Your task to perform on an android device: move a message to another label in the gmail app Image 0: 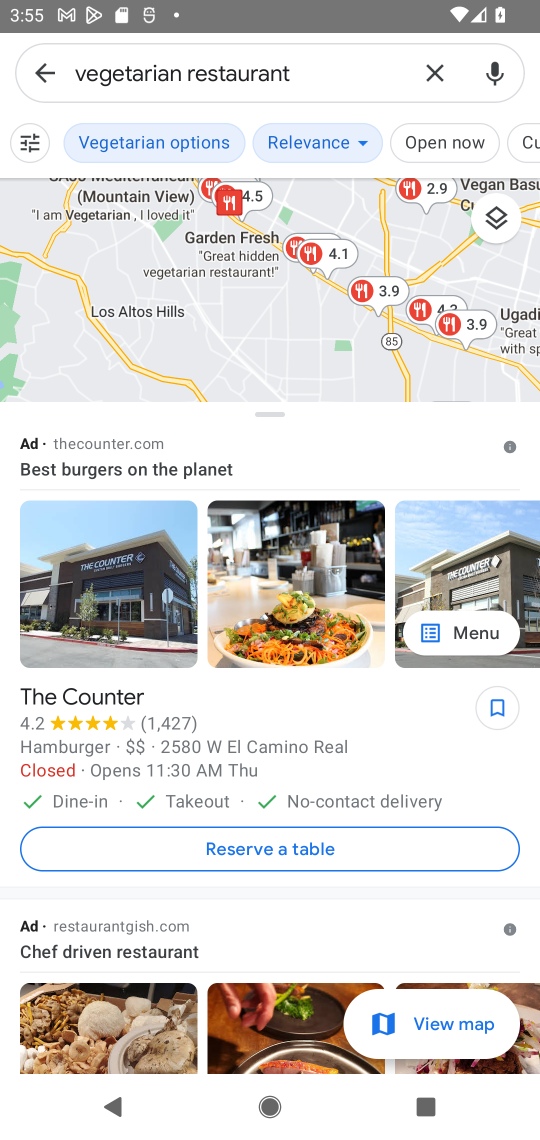
Step 0: press home button
Your task to perform on an android device: move a message to another label in the gmail app Image 1: 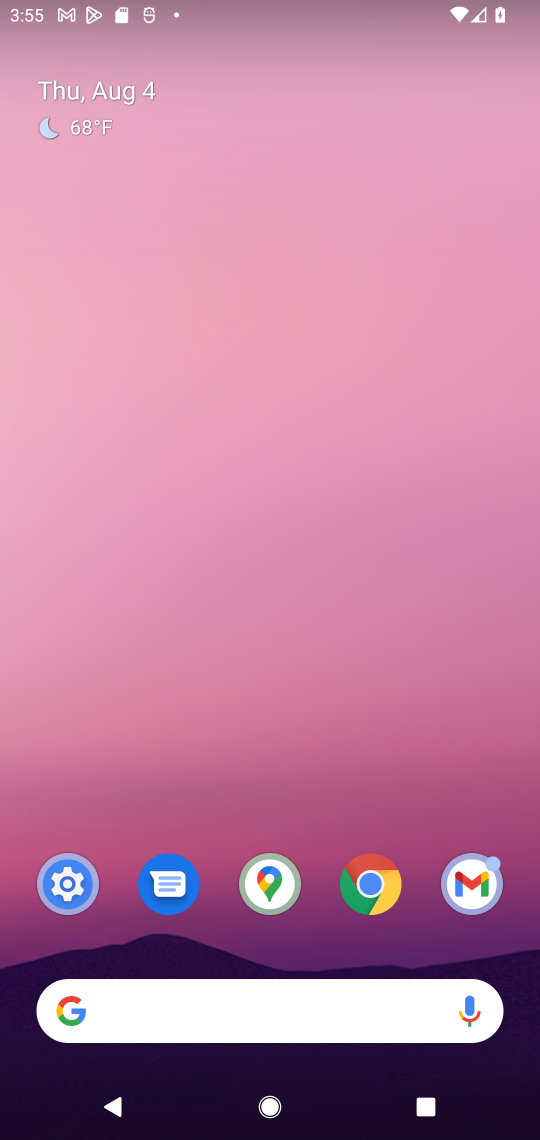
Step 1: drag from (301, 957) to (332, 245)
Your task to perform on an android device: move a message to another label in the gmail app Image 2: 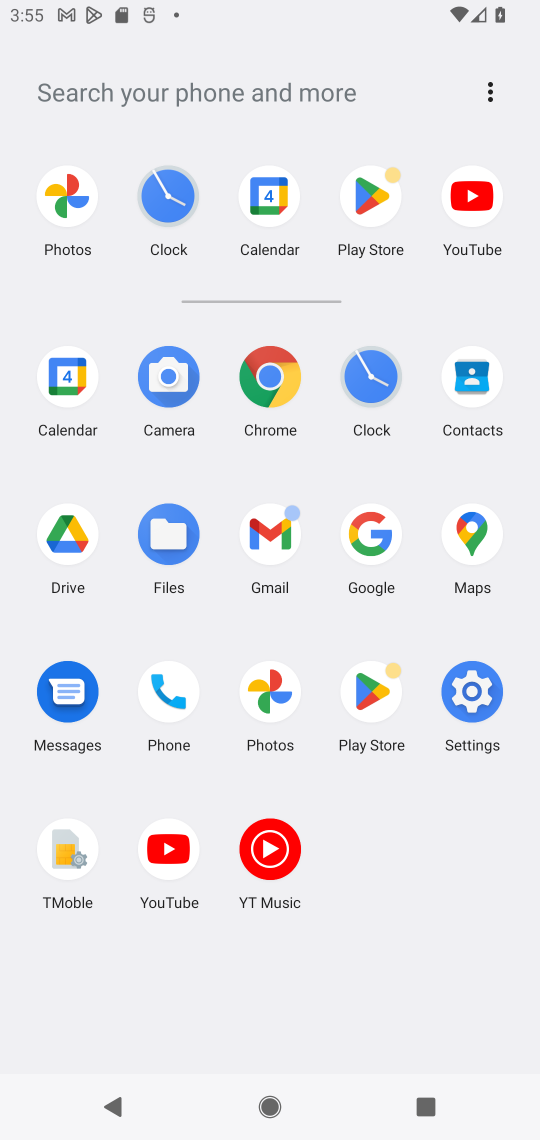
Step 2: click (292, 521)
Your task to perform on an android device: move a message to another label in the gmail app Image 3: 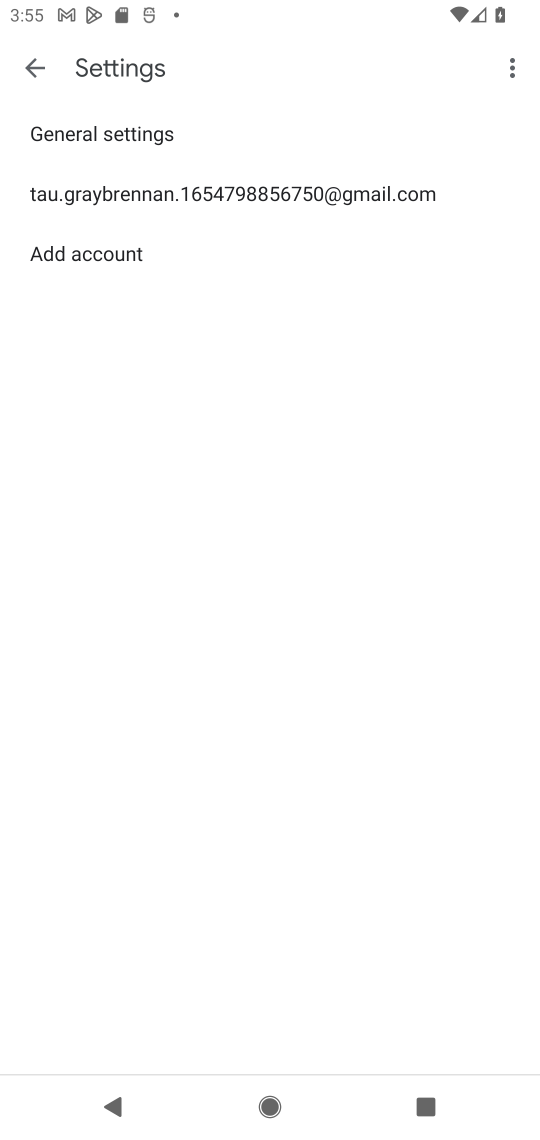
Step 3: task complete